Your task to perform on an android device: Open Chrome and go to the settings page Image 0: 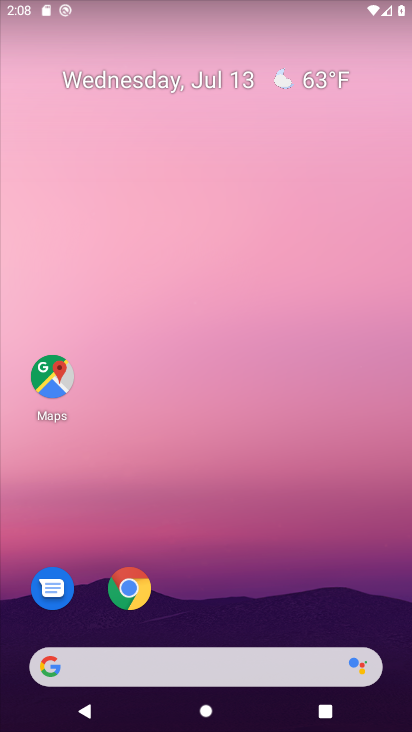
Step 0: drag from (210, 555) to (268, 64)
Your task to perform on an android device: Open Chrome and go to the settings page Image 1: 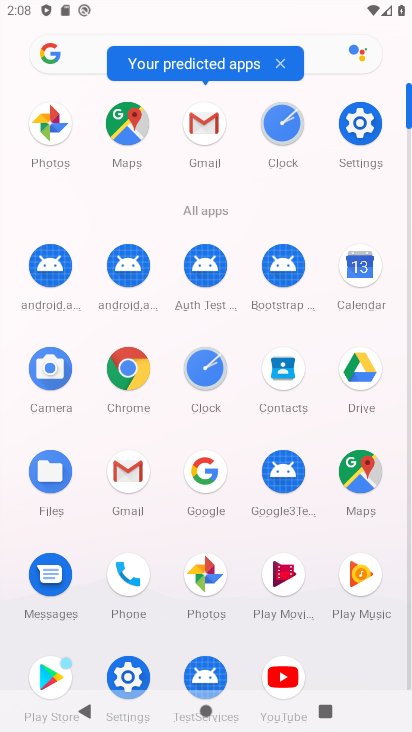
Step 1: click (125, 360)
Your task to perform on an android device: Open Chrome and go to the settings page Image 2: 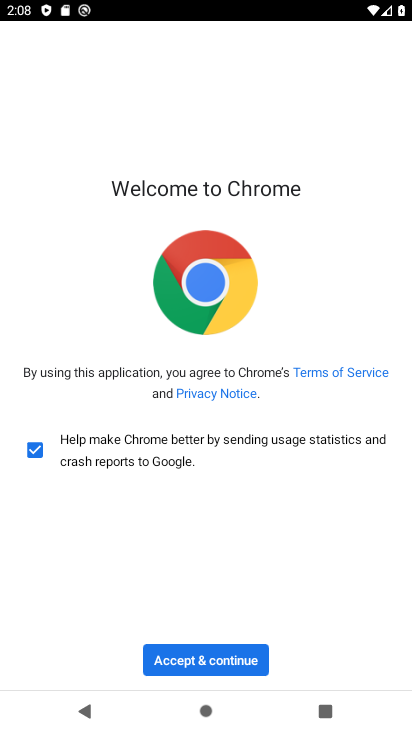
Step 2: click (202, 664)
Your task to perform on an android device: Open Chrome and go to the settings page Image 3: 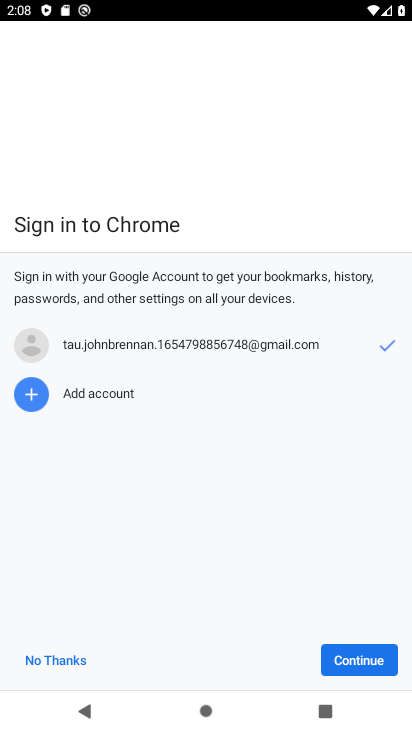
Step 3: click (341, 656)
Your task to perform on an android device: Open Chrome and go to the settings page Image 4: 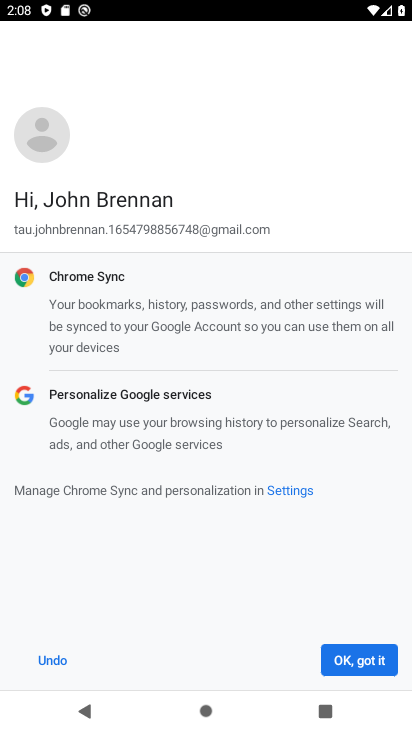
Step 4: click (341, 656)
Your task to perform on an android device: Open Chrome and go to the settings page Image 5: 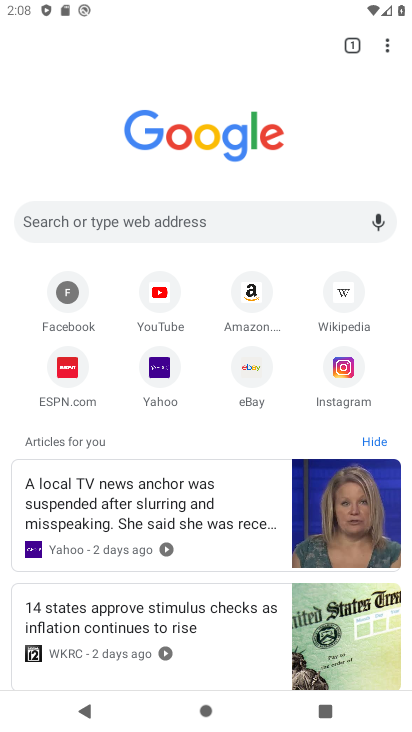
Step 5: task complete